Your task to perform on an android device: change the clock style Image 0: 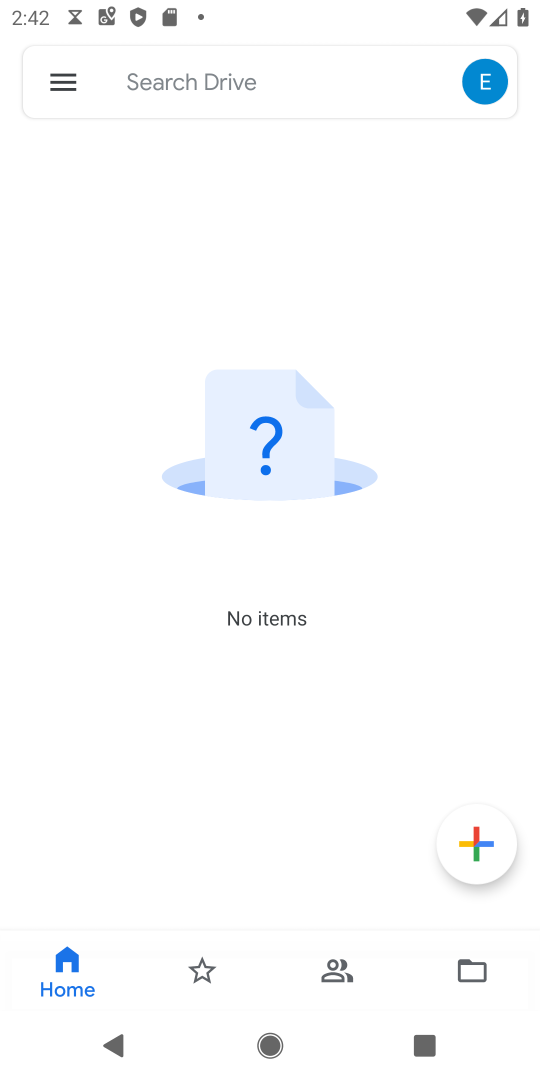
Step 0: press home button
Your task to perform on an android device: change the clock style Image 1: 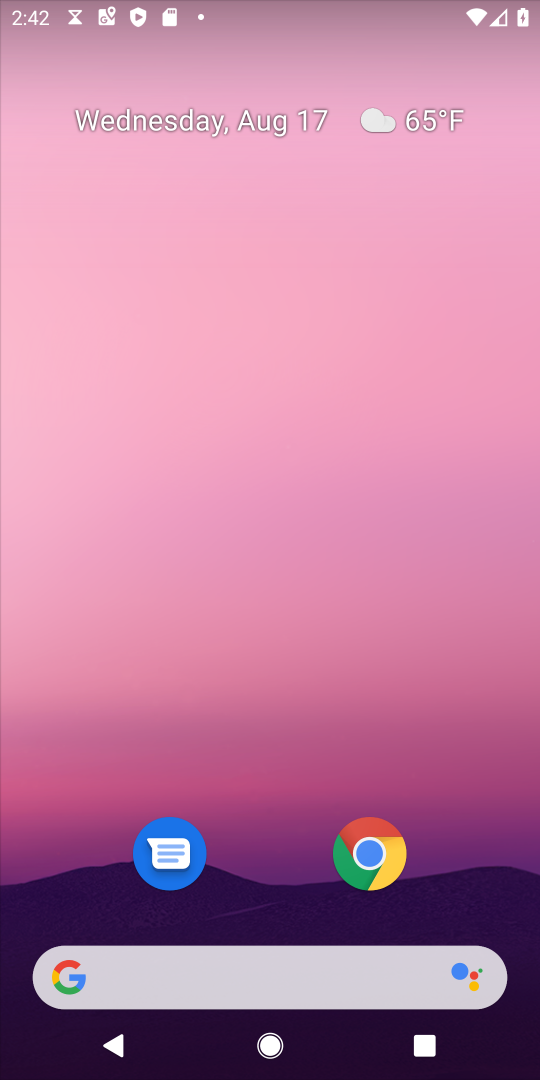
Step 1: drag from (274, 910) to (194, 211)
Your task to perform on an android device: change the clock style Image 2: 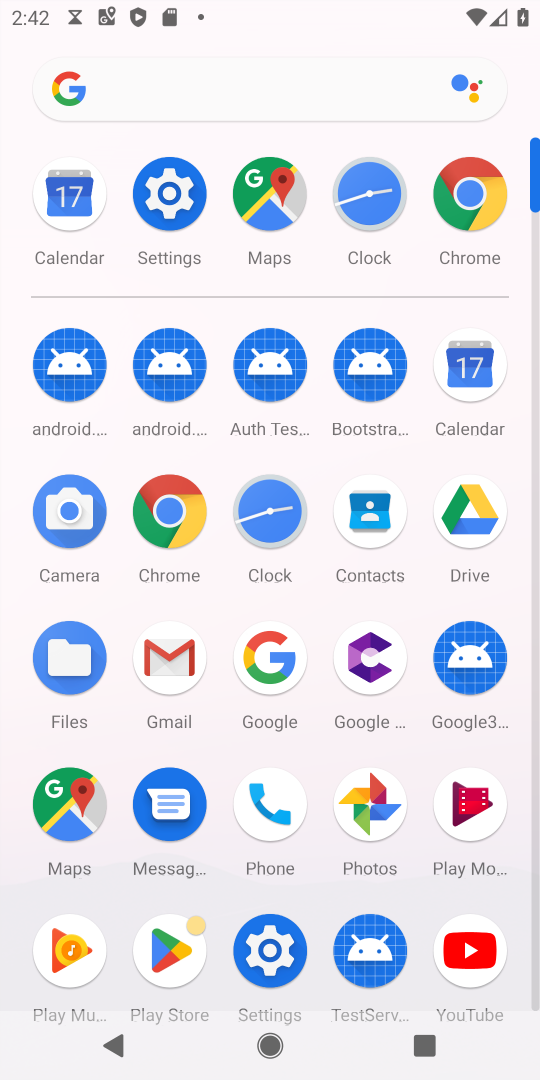
Step 2: click (273, 512)
Your task to perform on an android device: change the clock style Image 3: 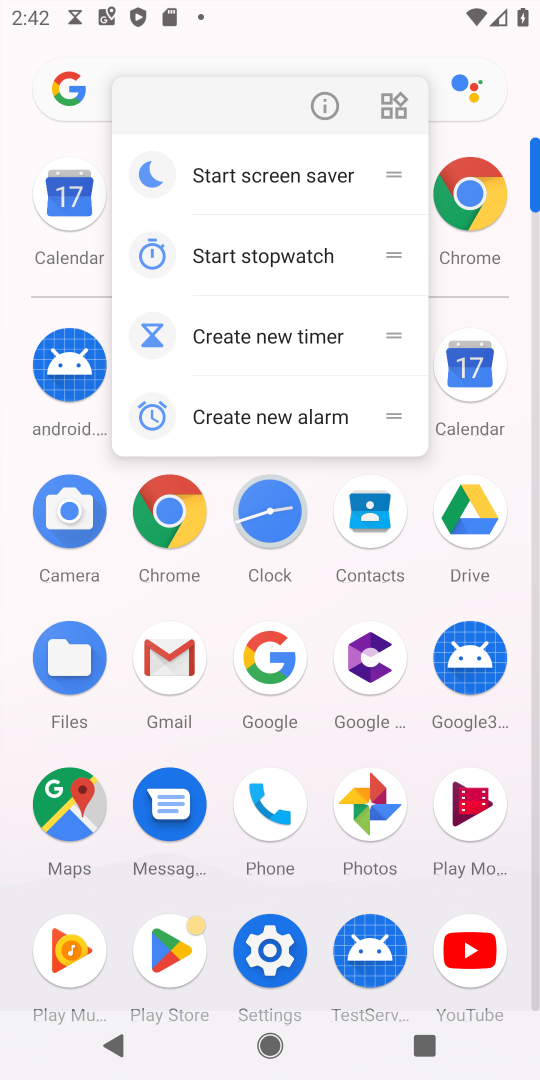
Step 3: click (290, 493)
Your task to perform on an android device: change the clock style Image 4: 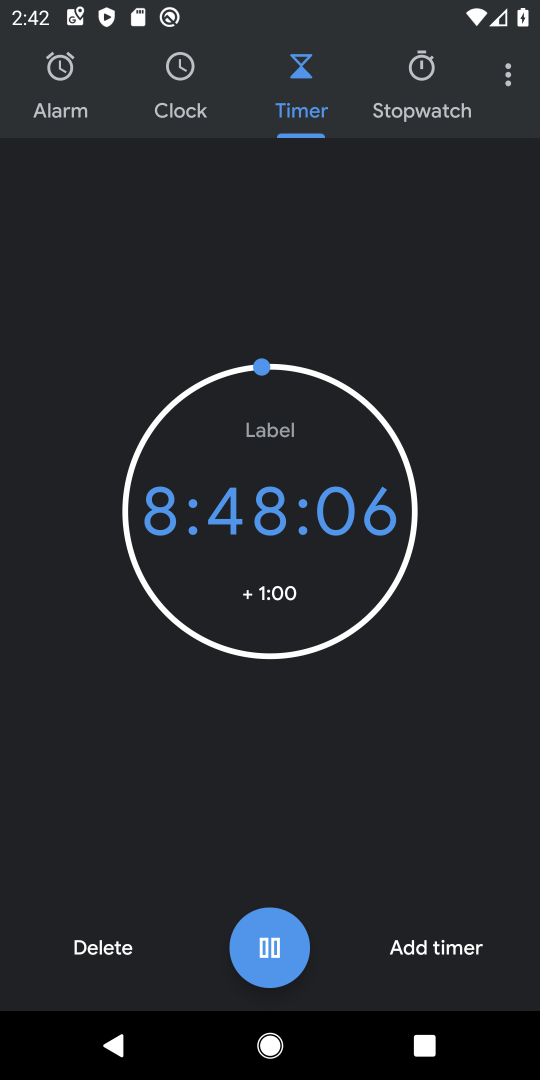
Step 4: click (516, 73)
Your task to perform on an android device: change the clock style Image 5: 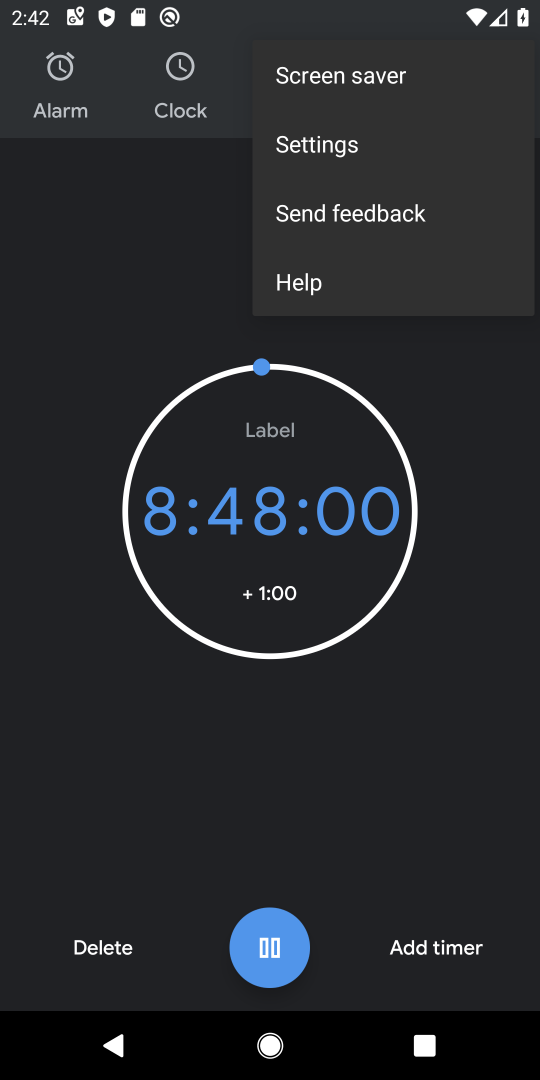
Step 5: click (348, 154)
Your task to perform on an android device: change the clock style Image 6: 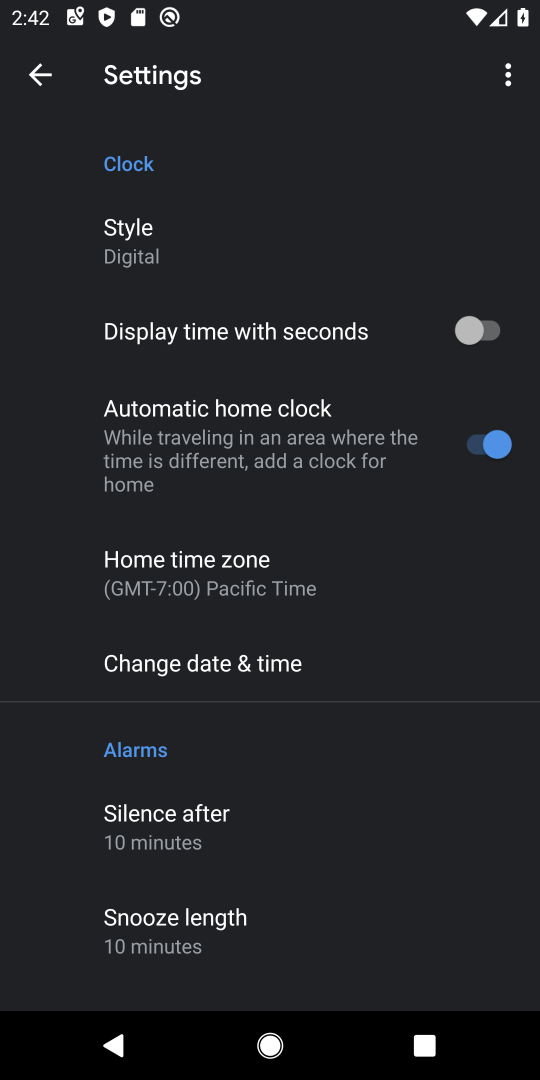
Step 6: click (122, 243)
Your task to perform on an android device: change the clock style Image 7: 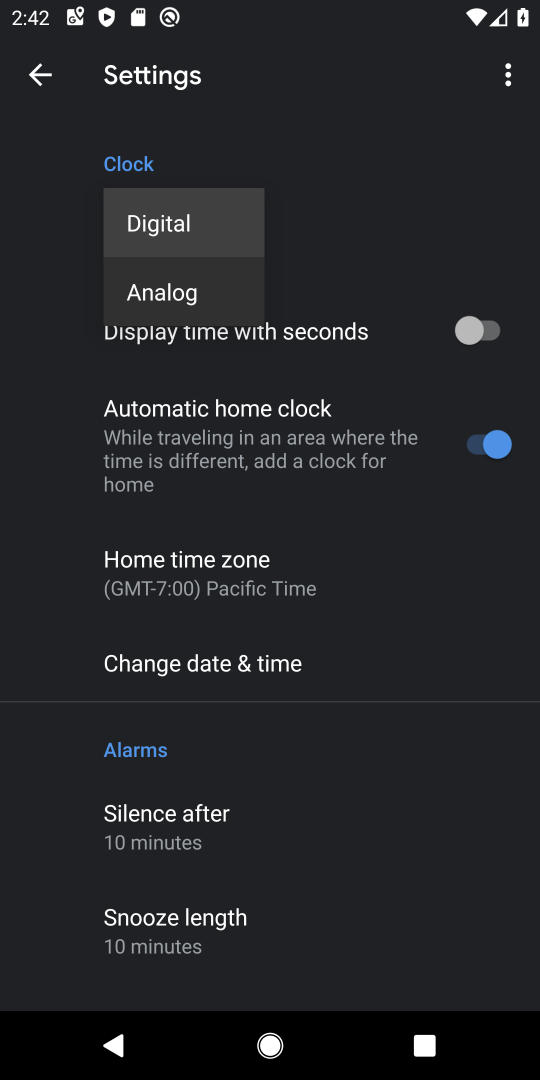
Step 7: click (213, 297)
Your task to perform on an android device: change the clock style Image 8: 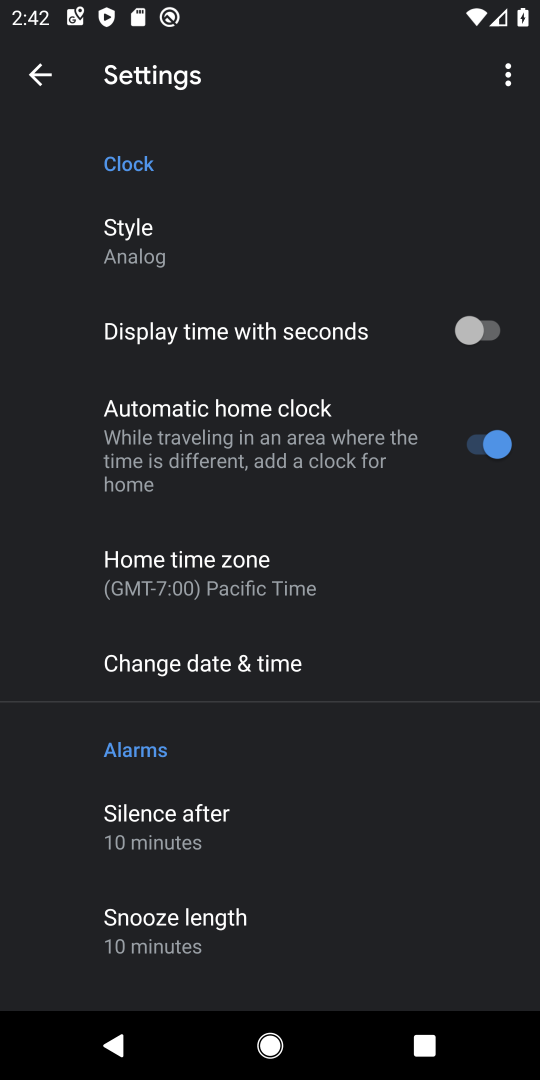
Step 8: task complete